Your task to perform on an android device: Open Yahoo.com Image 0: 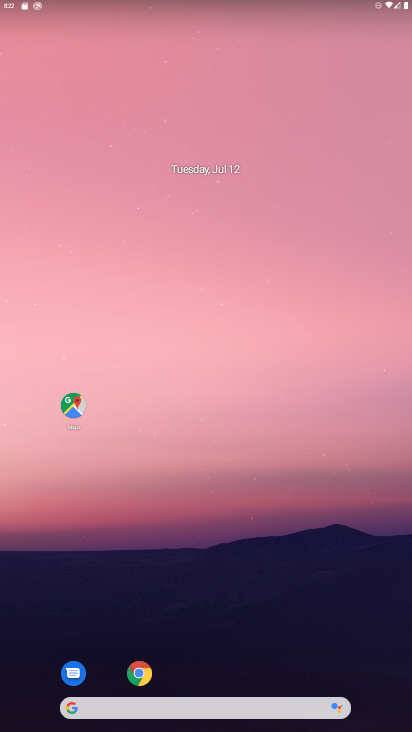
Step 0: drag from (238, 670) to (222, 139)
Your task to perform on an android device: Open Yahoo.com Image 1: 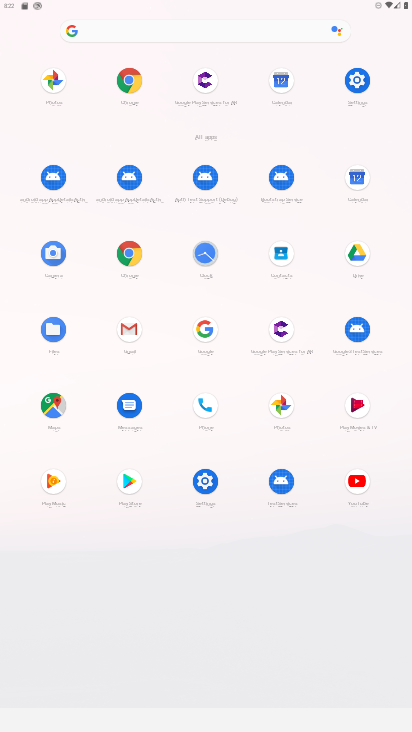
Step 1: click (128, 245)
Your task to perform on an android device: Open Yahoo.com Image 2: 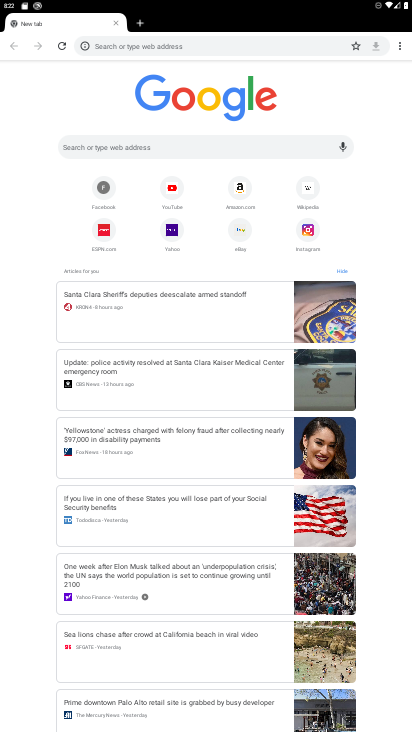
Step 2: click (157, 147)
Your task to perform on an android device: Open Yahoo.com Image 3: 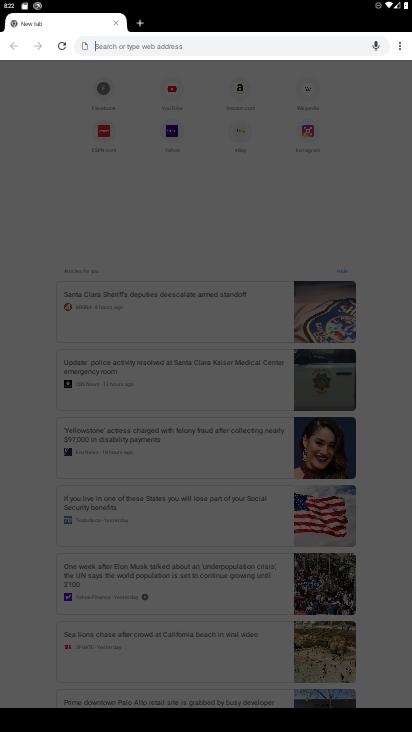
Step 3: type "yahoo.com"
Your task to perform on an android device: Open Yahoo.com Image 4: 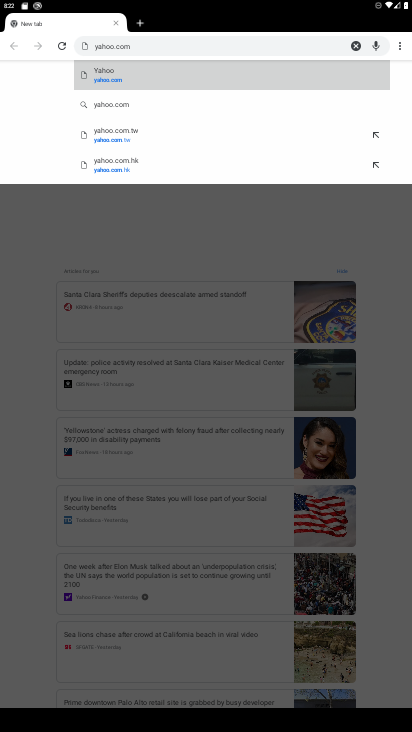
Step 4: click (113, 74)
Your task to perform on an android device: Open Yahoo.com Image 5: 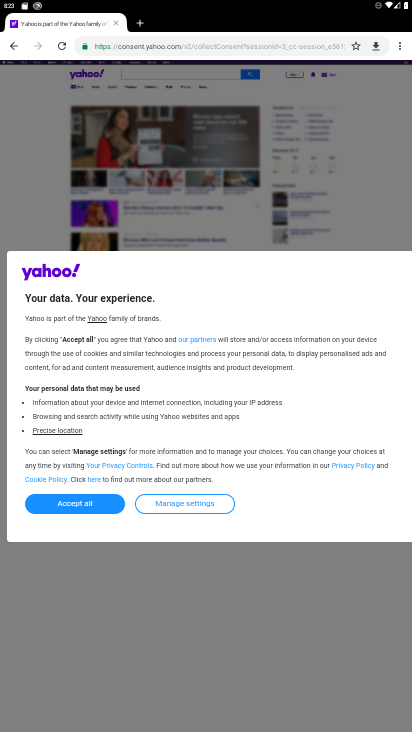
Step 5: click (81, 506)
Your task to perform on an android device: Open Yahoo.com Image 6: 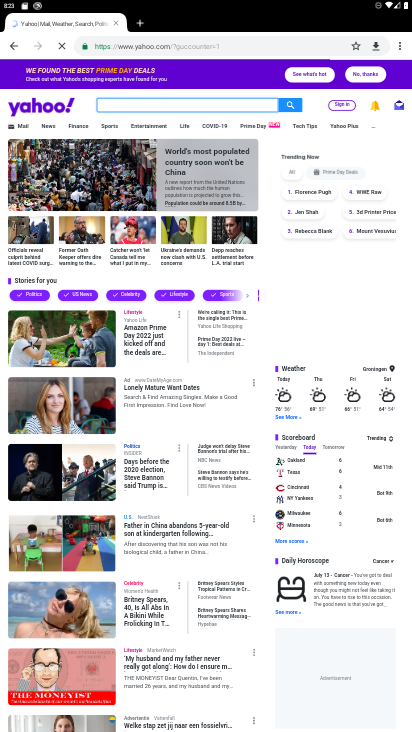
Step 6: task complete